Your task to perform on an android device: Open calendar and show me the fourth week of next month Image 0: 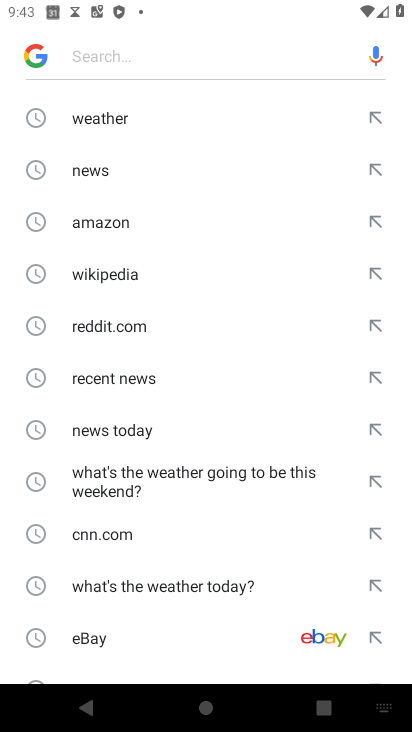
Step 0: press home button
Your task to perform on an android device: Open calendar and show me the fourth week of next month Image 1: 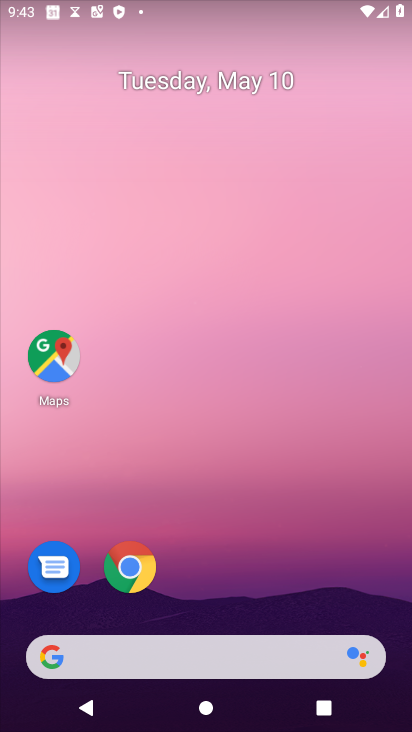
Step 1: drag from (15, 633) to (230, 127)
Your task to perform on an android device: Open calendar and show me the fourth week of next month Image 2: 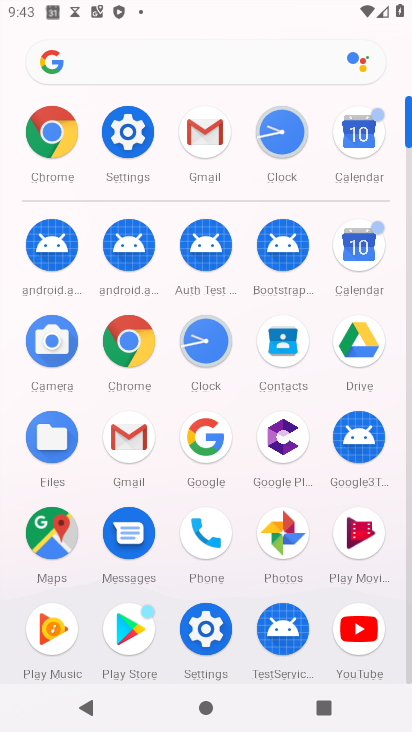
Step 2: click (346, 133)
Your task to perform on an android device: Open calendar and show me the fourth week of next month Image 3: 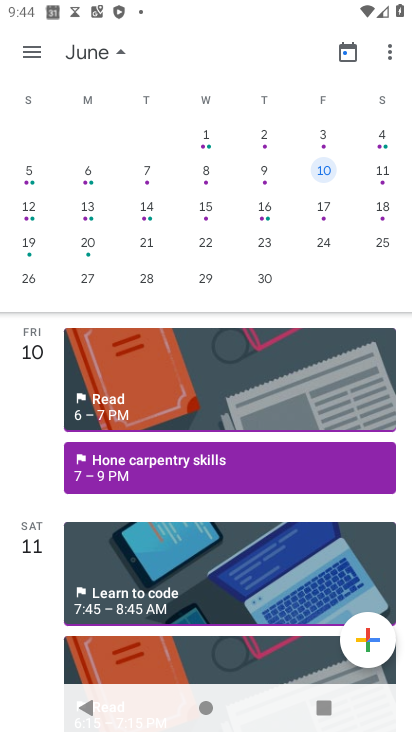
Step 3: click (81, 241)
Your task to perform on an android device: Open calendar and show me the fourth week of next month Image 4: 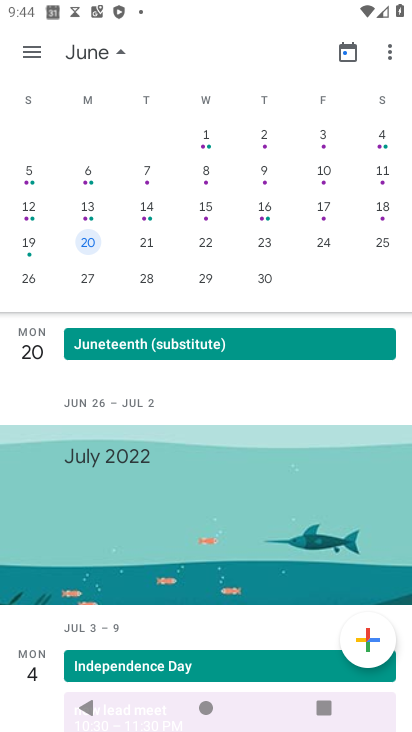
Step 4: click (138, 246)
Your task to perform on an android device: Open calendar and show me the fourth week of next month Image 5: 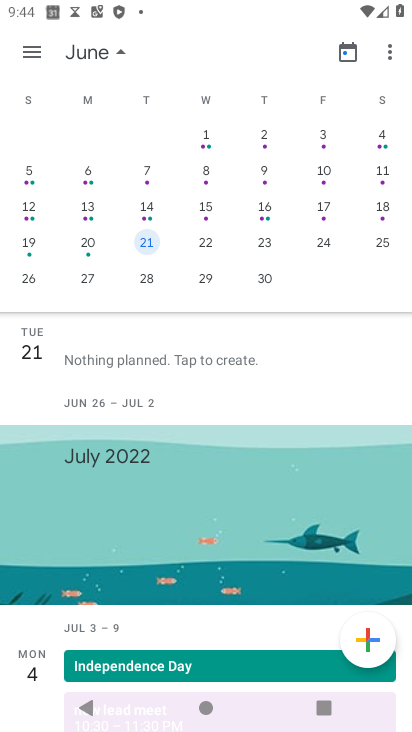
Step 5: click (218, 247)
Your task to perform on an android device: Open calendar and show me the fourth week of next month Image 6: 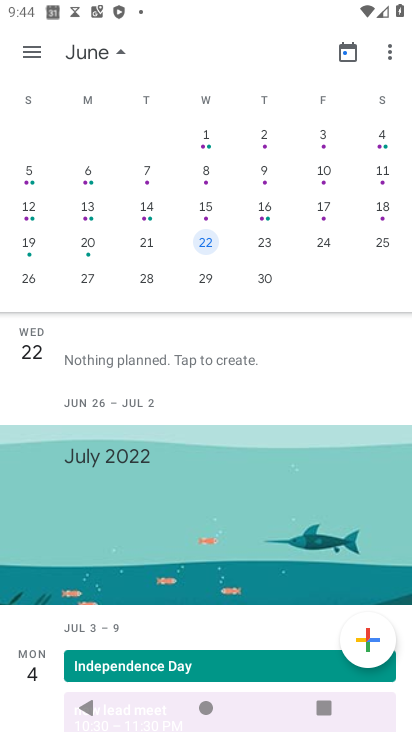
Step 6: click (268, 245)
Your task to perform on an android device: Open calendar and show me the fourth week of next month Image 7: 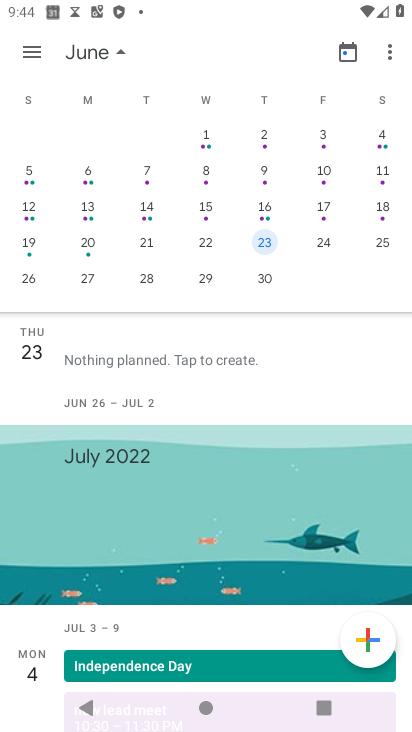
Step 7: click (321, 242)
Your task to perform on an android device: Open calendar and show me the fourth week of next month Image 8: 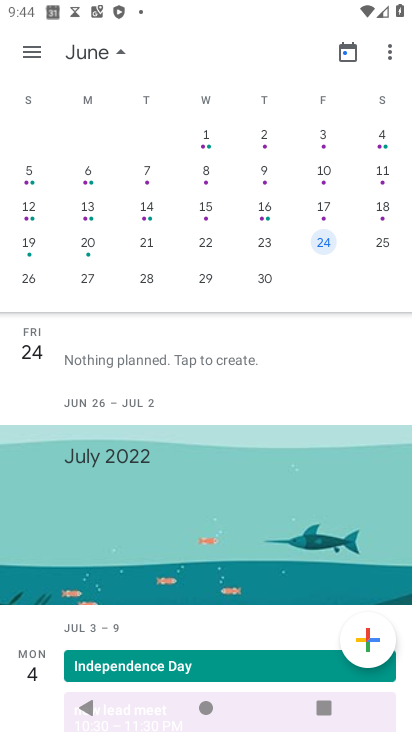
Step 8: task complete